Your task to perform on an android device: turn off data saver in the chrome app Image 0: 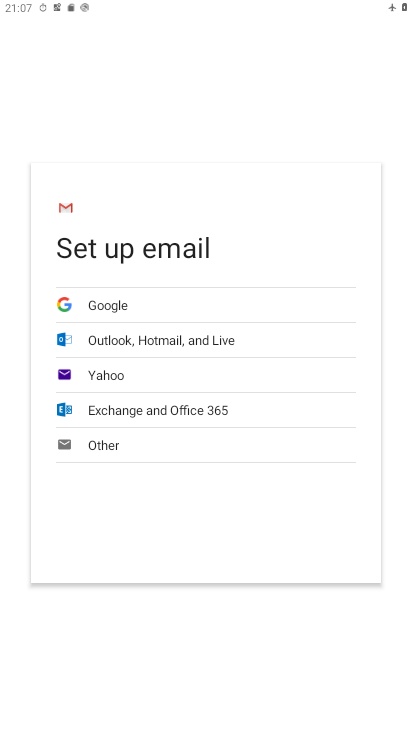
Step 0: press home button
Your task to perform on an android device: turn off data saver in the chrome app Image 1: 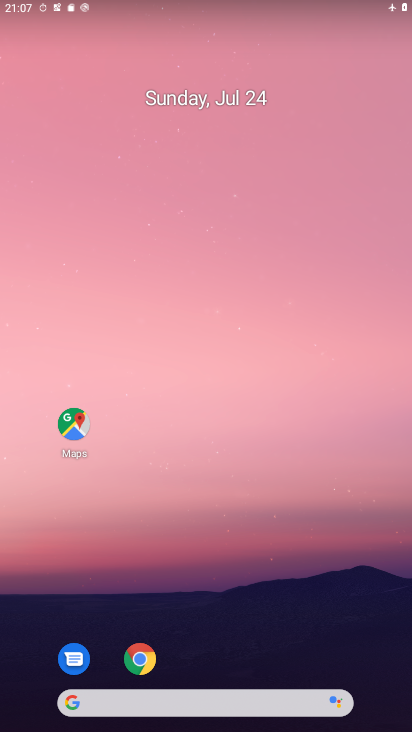
Step 1: click (142, 663)
Your task to perform on an android device: turn off data saver in the chrome app Image 2: 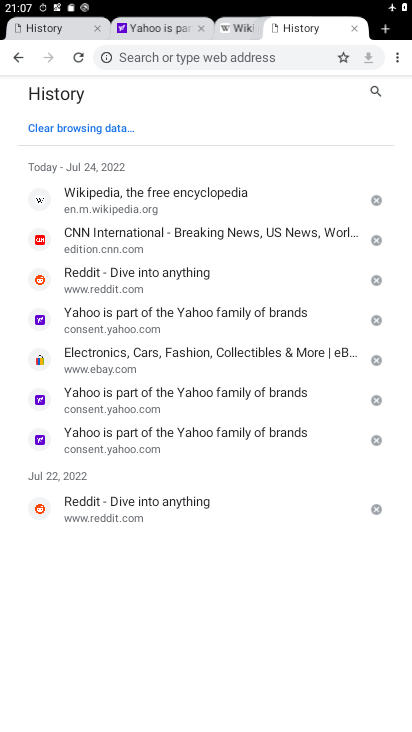
Step 2: click (399, 60)
Your task to perform on an android device: turn off data saver in the chrome app Image 3: 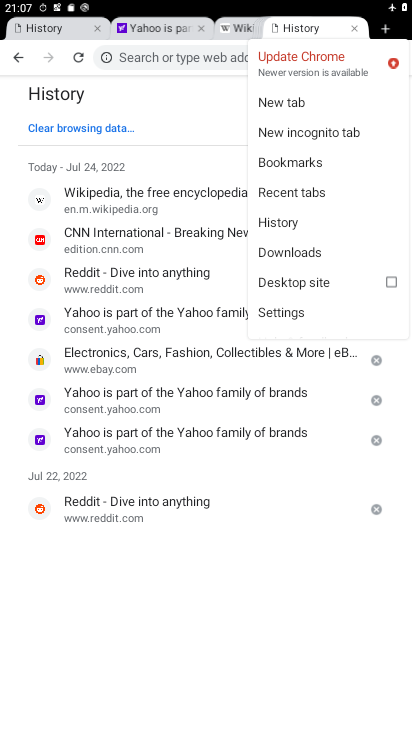
Step 3: click (293, 310)
Your task to perform on an android device: turn off data saver in the chrome app Image 4: 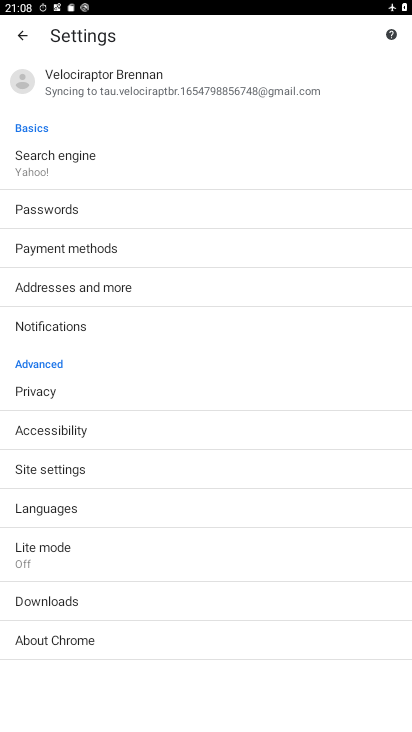
Step 4: click (55, 544)
Your task to perform on an android device: turn off data saver in the chrome app Image 5: 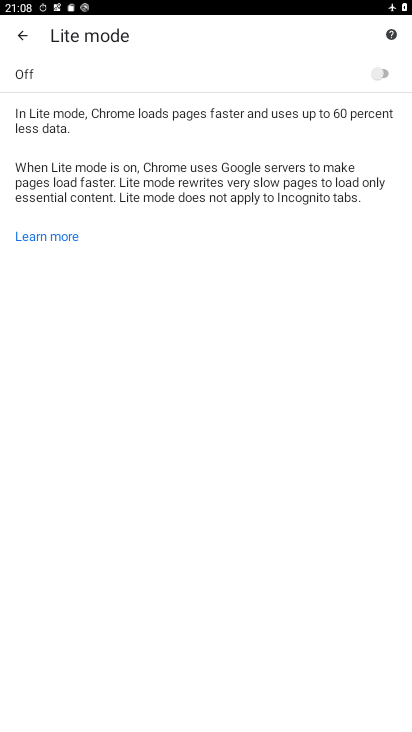
Step 5: task complete